Your task to perform on an android device: Add lenovo thinkpad to the cart on newegg, then select checkout. Image 0: 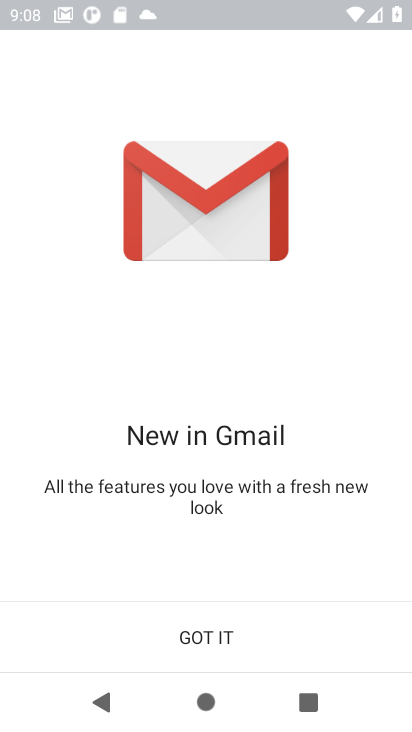
Step 0: press home button
Your task to perform on an android device: Add lenovo thinkpad to the cart on newegg, then select checkout. Image 1: 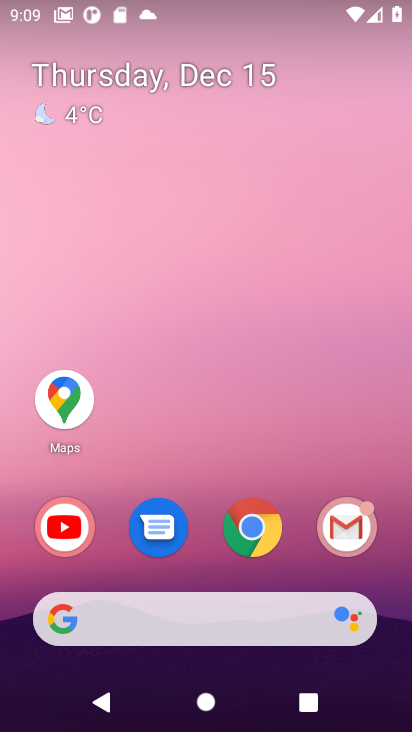
Step 1: click (234, 548)
Your task to perform on an android device: Add lenovo thinkpad to the cart on newegg, then select checkout. Image 2: 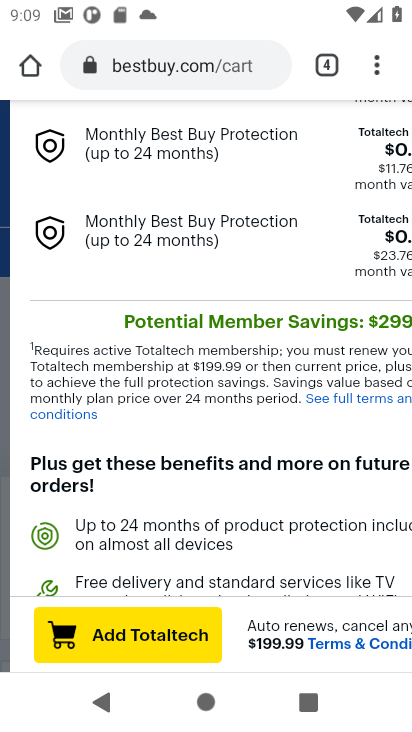
Step 2: click (216, 74)
Your task to perform on an android device: Add lenovo thinkpad to the cart on newegg, then select checkout. Image 3: 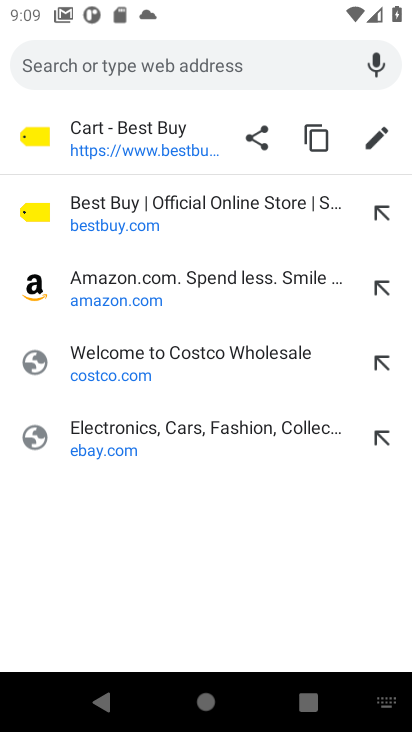
Step 3: type "newegg"
Your task to perform on an android device: Add lenovo thinkpad to the cart on newegg, then select checkout. Image 4: 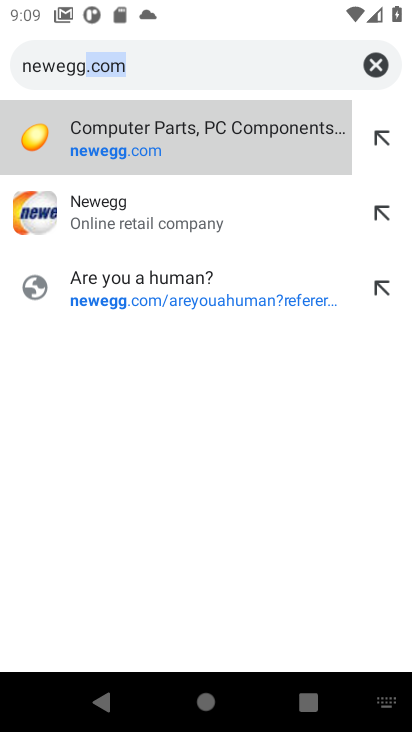
Step 4: click (204, 165)
Your task to perform on an android device: Add lenovo thinkpad to the cart on newegg, then select checkout. Image 5: 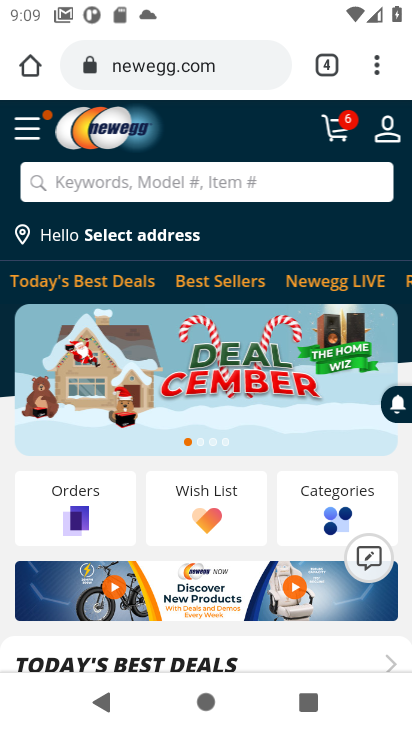
Step 5: click (170, 185)
Your task to perform on an android device: Add lenovo thinkpad to the cart on newegg, then select checkout. Image 6: 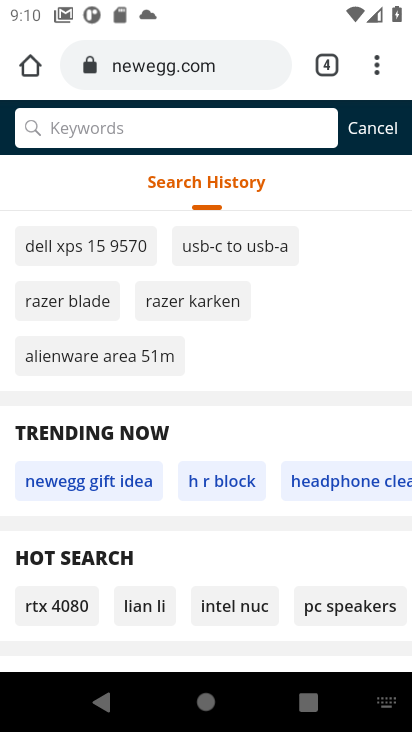
Step 6: type "lenovo thinkpad"
Your task to perform on an android device: Add lenovo thinkpad to the cart on newegg, then select checkout. Image 7: 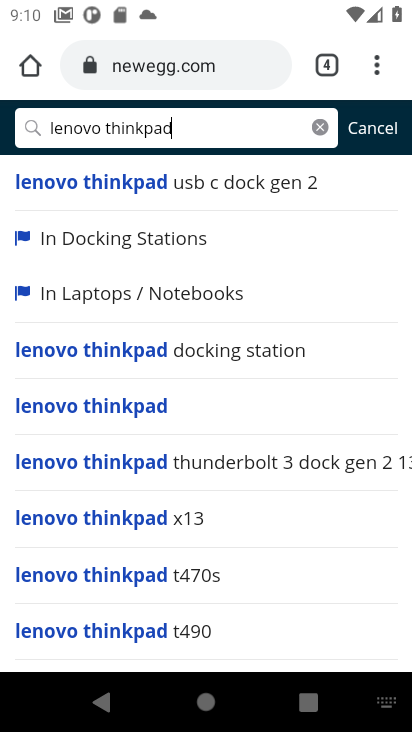
Step 7: click (112, 401)
Your task to perform on an android device: Add lenovo thinkpad to the cart on newegg, then select checkout. Image 8: 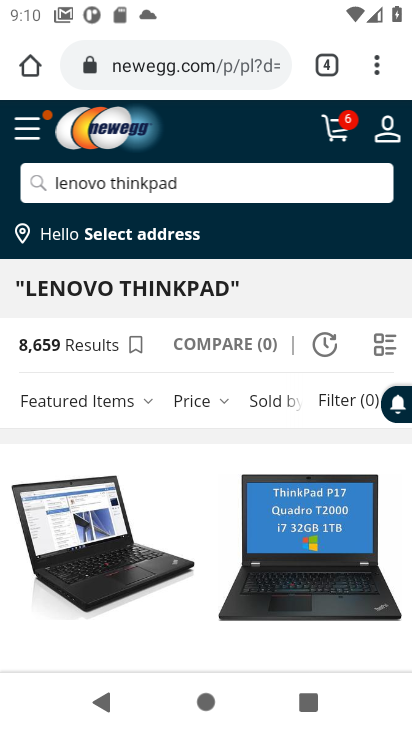
Step 8: click (146, 547)
Your task to perform on an android device: Add lenovo thinkpad to the cart on newegg, then select checkout. Image 9: 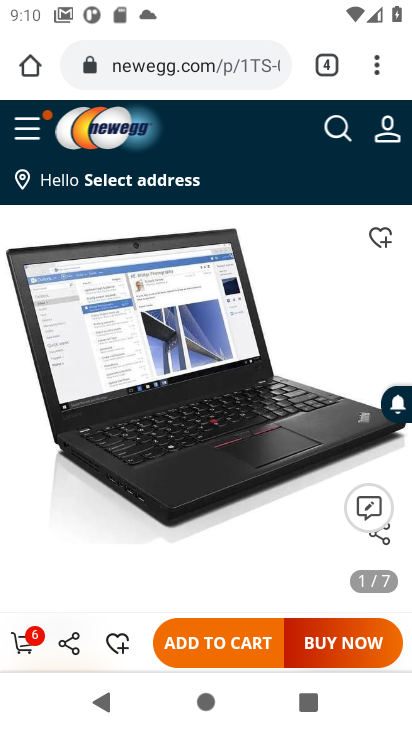
Step 9: click (221, 649)
Your task to perform on an android device: Add lenovo thinkpad to the cart on newegg, then select checkout. Image 10: 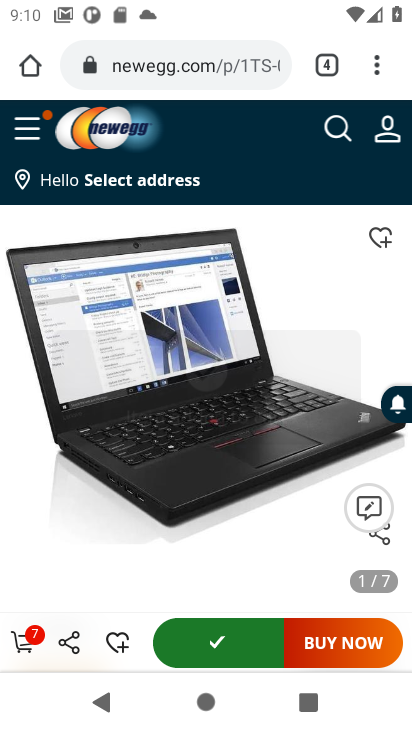
Step 10: task complete